Your task to perform on an android device: stop showing notifications on the lock screen Image 0: 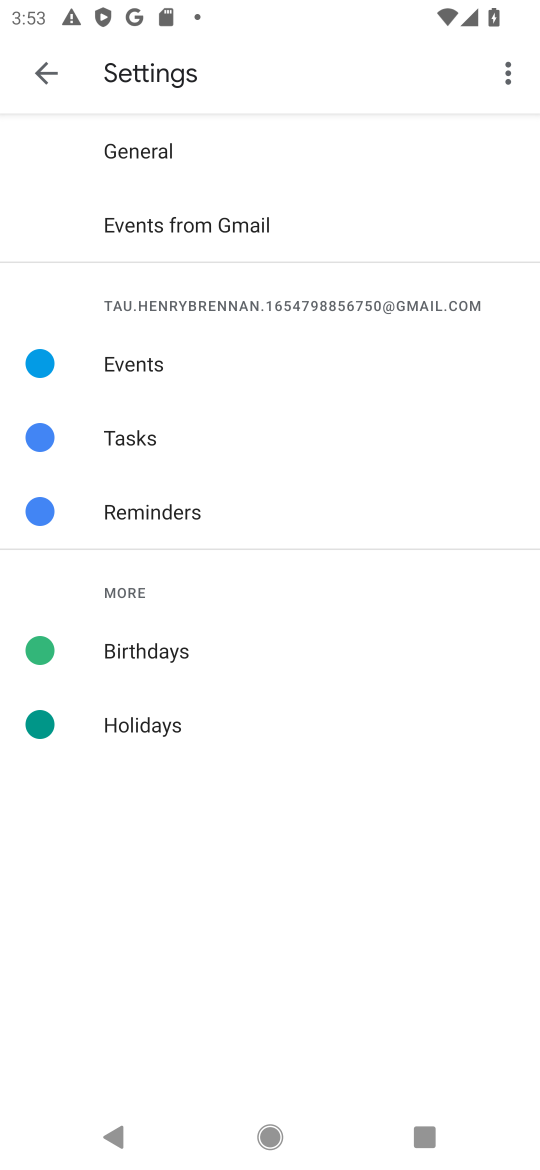
Step 0: press home button
Your task to perform on an android device: stop showing notifications on the lock screen Image 1: 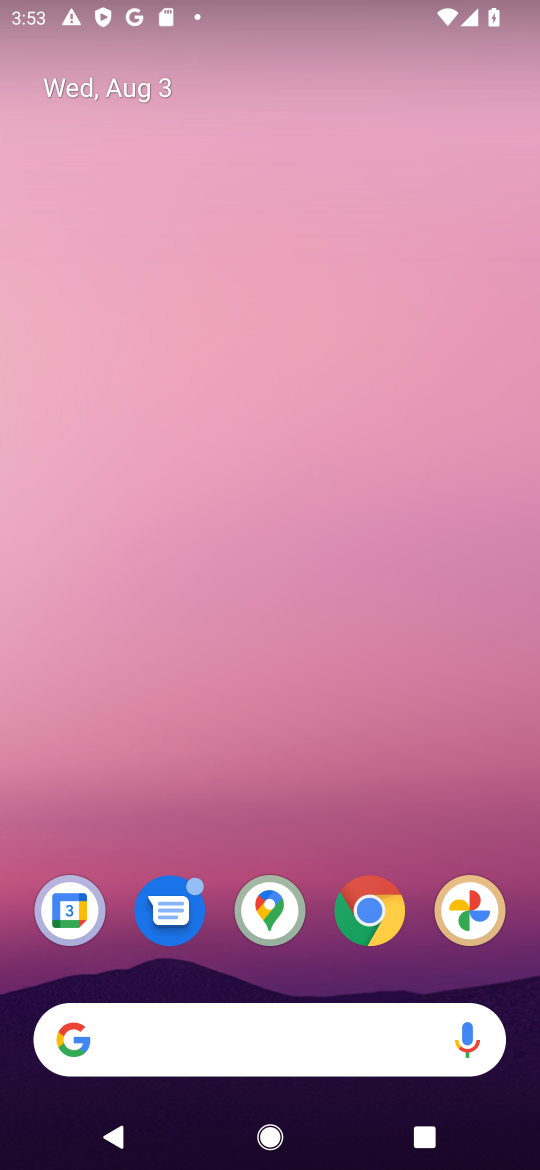
Step 1: drag from (423, 225) to (458, 100)
Your task to perform on an android device: stop showing notifications on the lock screen Image 2: 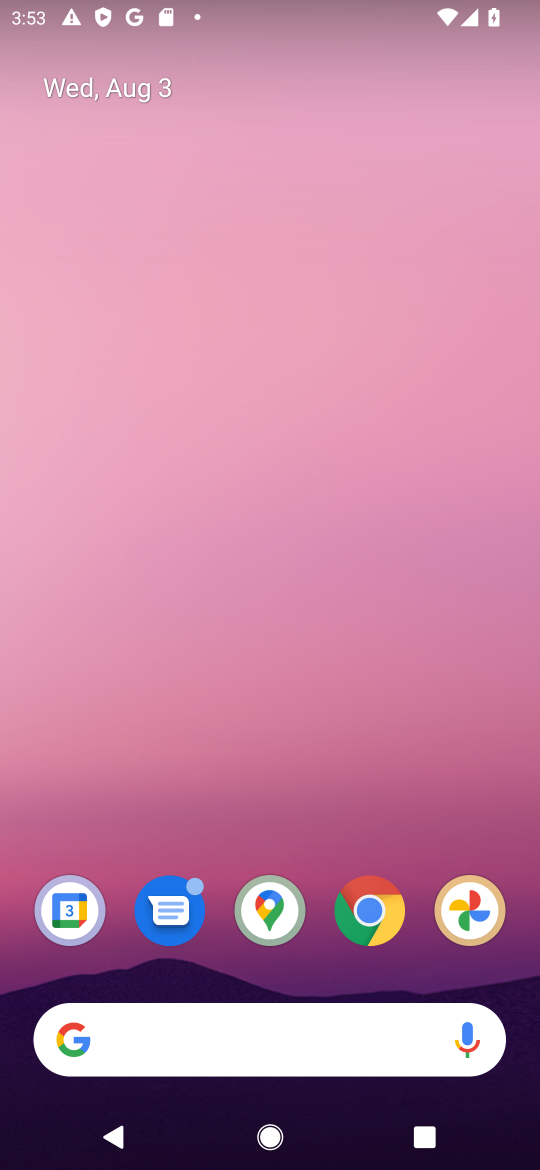
Step 2: drag from (62, 1119) to (484, 76)
Your task to perform on an android device: stop showing notifications on the lock screen Image 3: 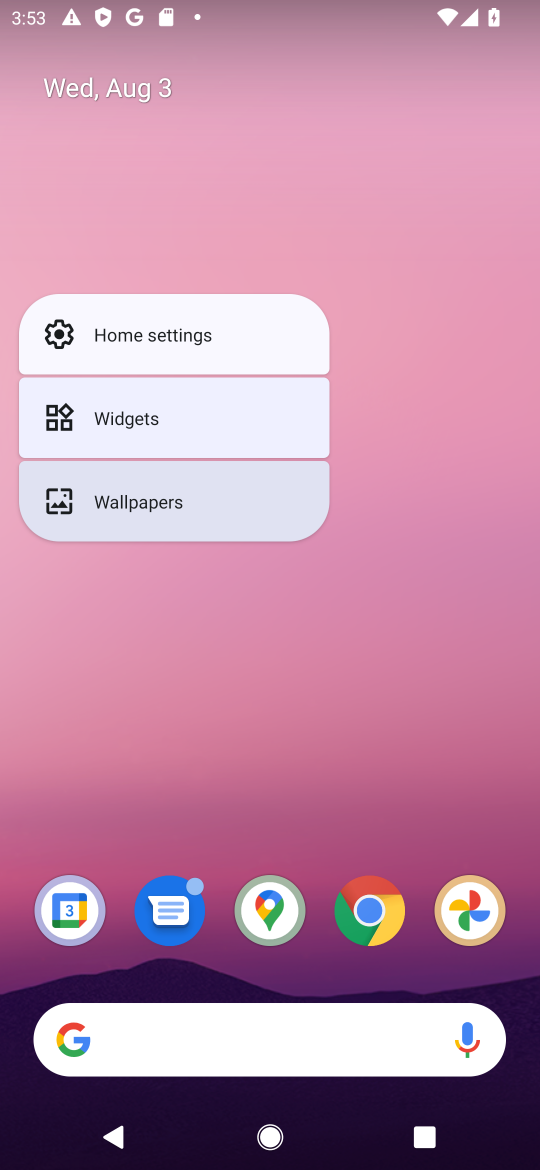
Step 3: drag from (47, 1147) to (351, 68)
Your task to perform on an android device: stop showing notifications on the lock screen Image 4: 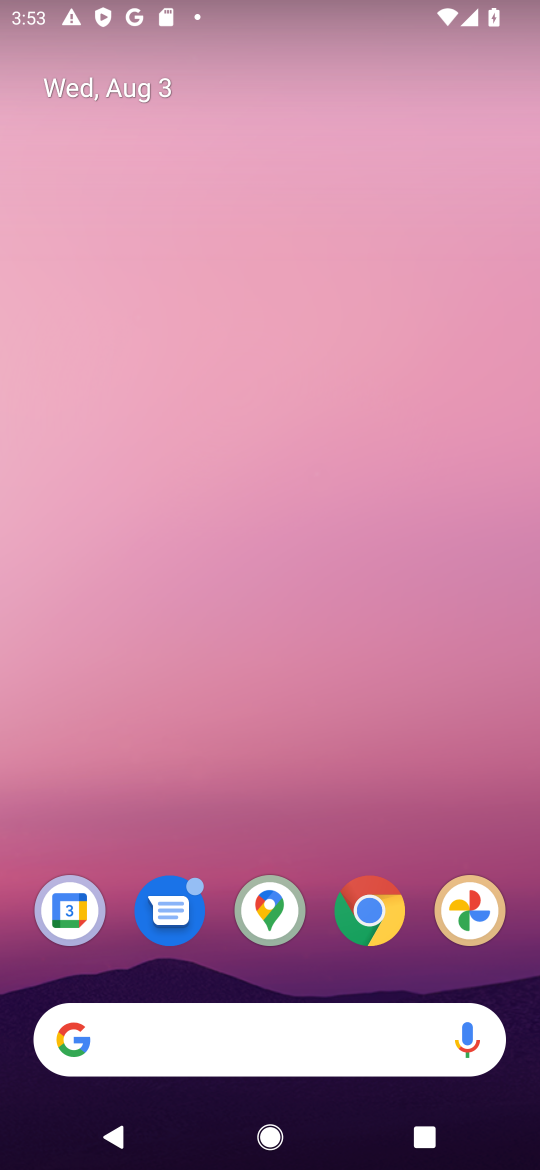
Step 4: drag from (42, 1123) to (385, 30)
Your task to perform on an android device: stop showing notifications on the lock screen Image 5: 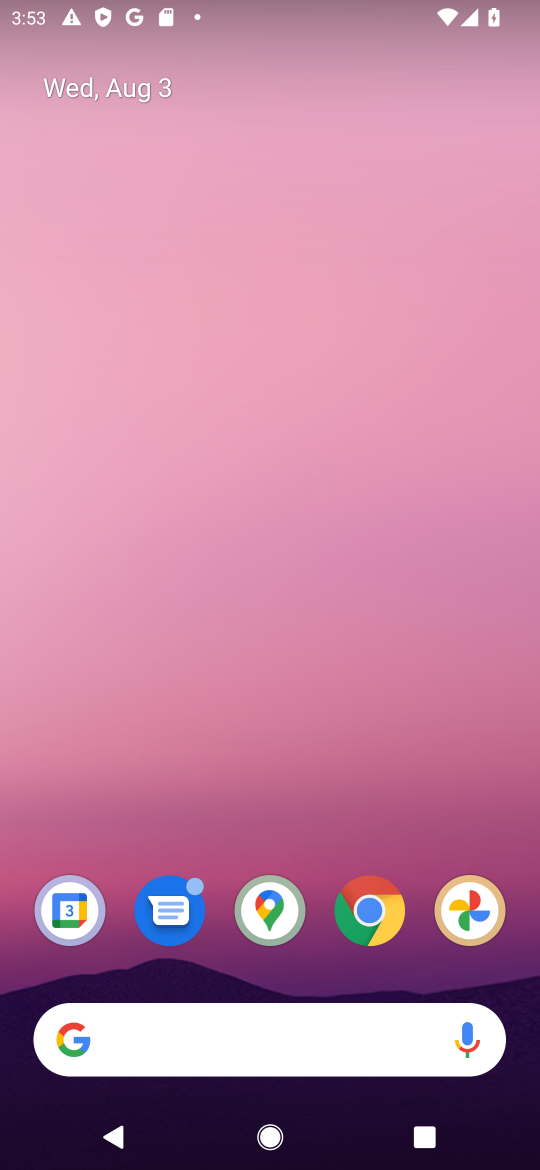
Step 5: drag from (45, 1106) to (383, 5)
Your task to perform on an android device: stop showing notifications on the lock screen Image 6: 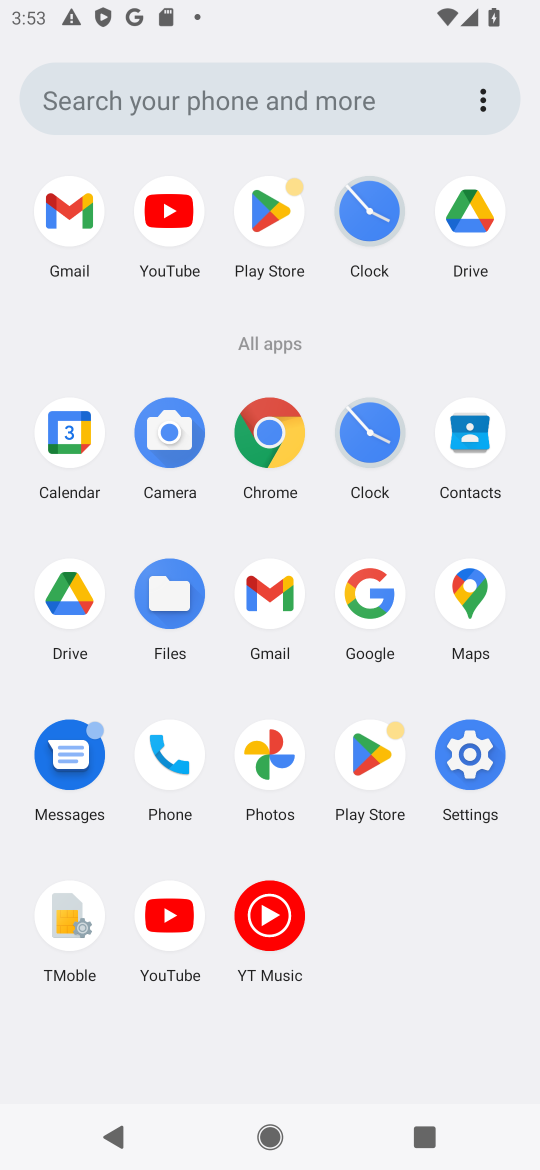
Step 6: click (473, 758)
Your task to perform on an android device: stop showing notifications on the lock screen Image 7: 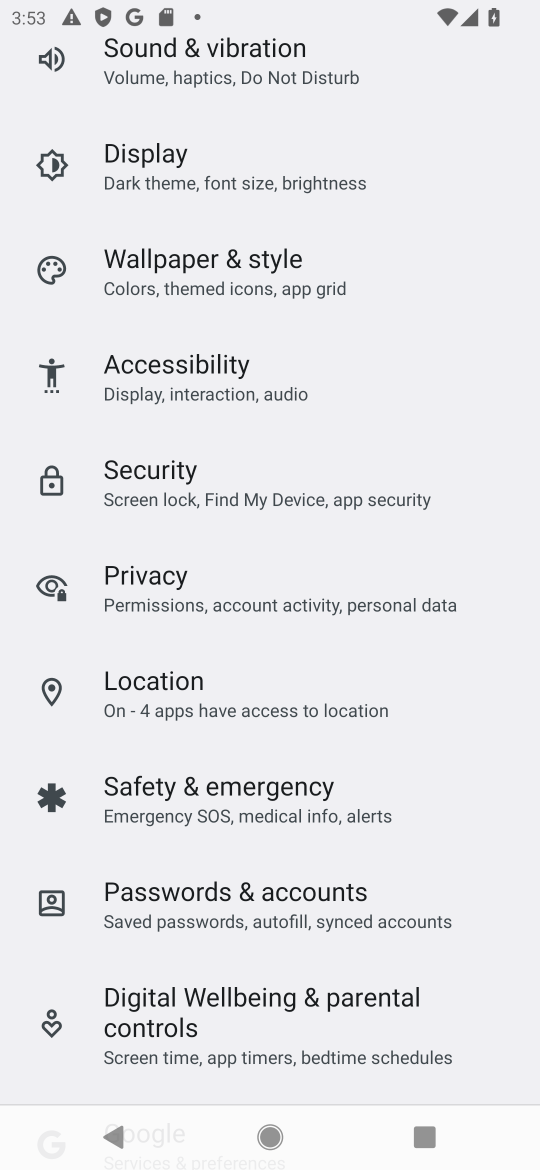
Step 7: drag from (301, 742) to (315, 441)
Your task to perform on an android device: stop showing notifications on the lock screen Image 8: 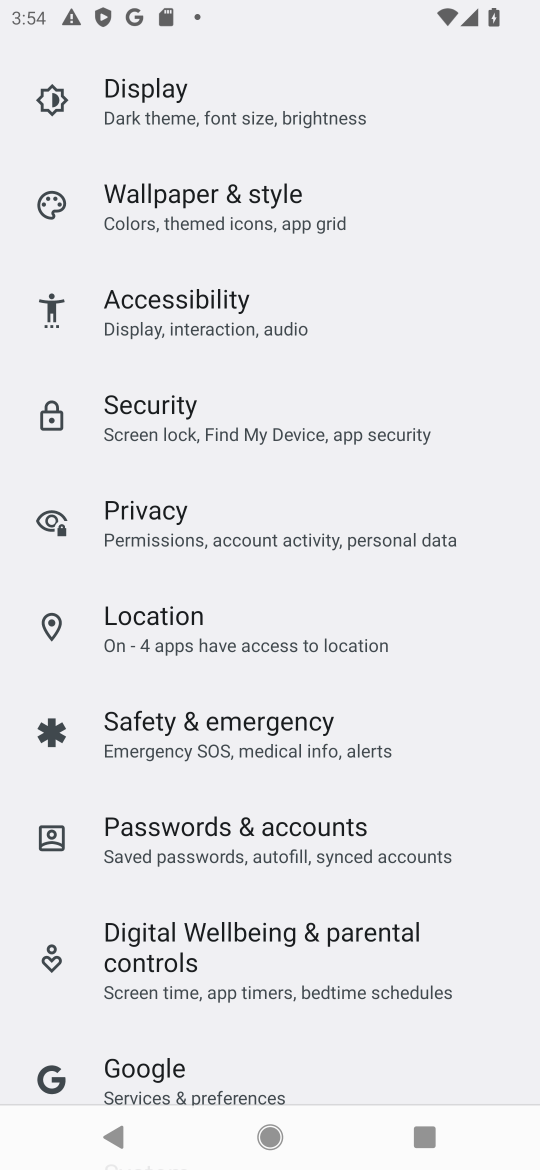
Step 8: drag from (331, 206) to (303, 1134)
Your task to perform on an android device: stop showing notifications on the lock screen Image 9: 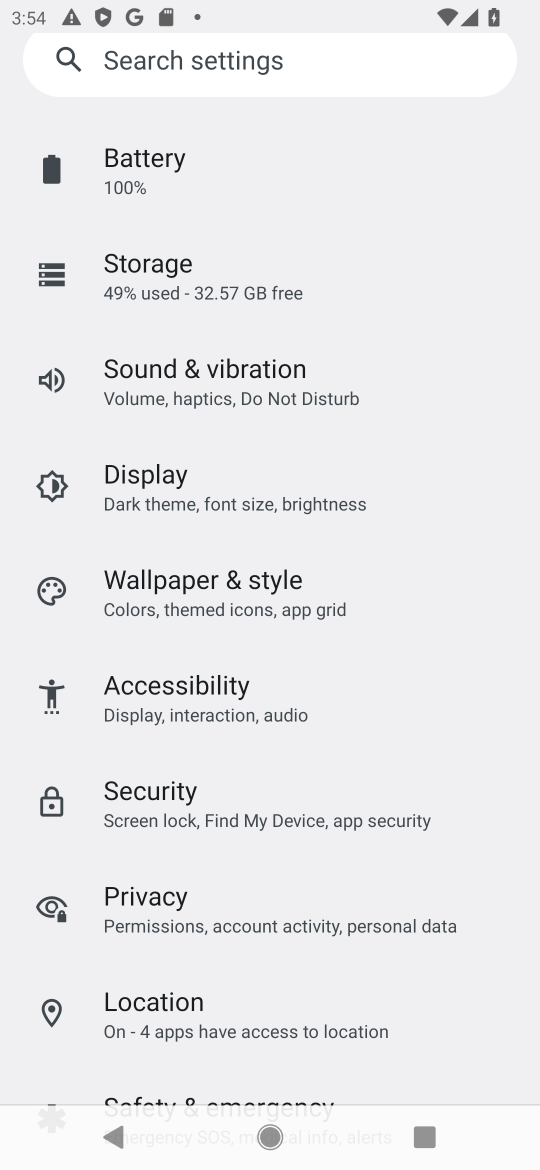
Step 9: drag from (359, 188) to (343, 974)
Your task to perform on an android device: stop showing notifications on the lock screen Image 10: 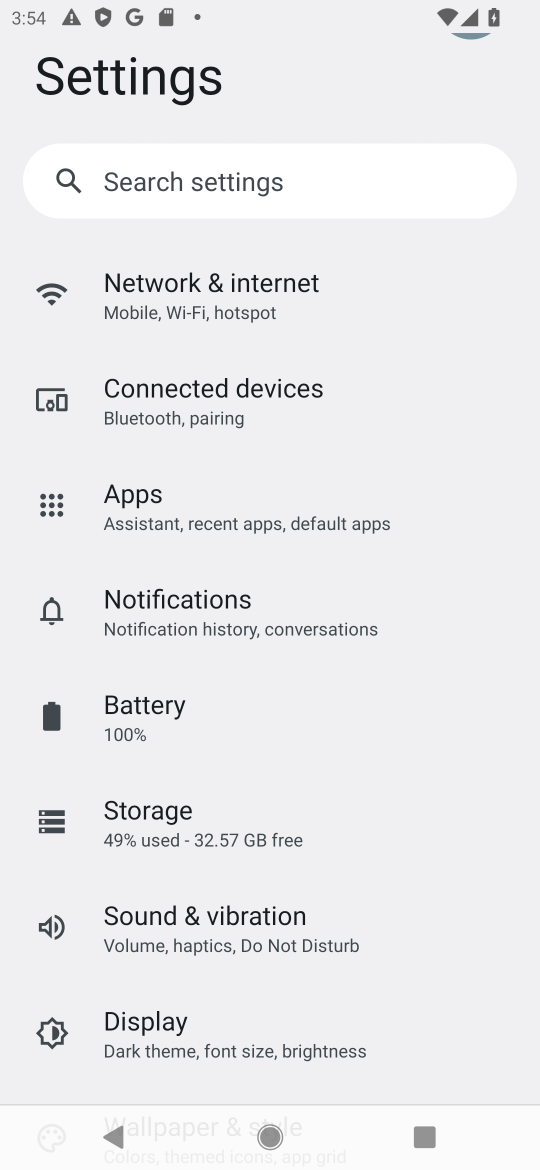
Step 10: click (157, 607)
Your task to perform on an android device: stop showing notifications on the lock screen Image 11: 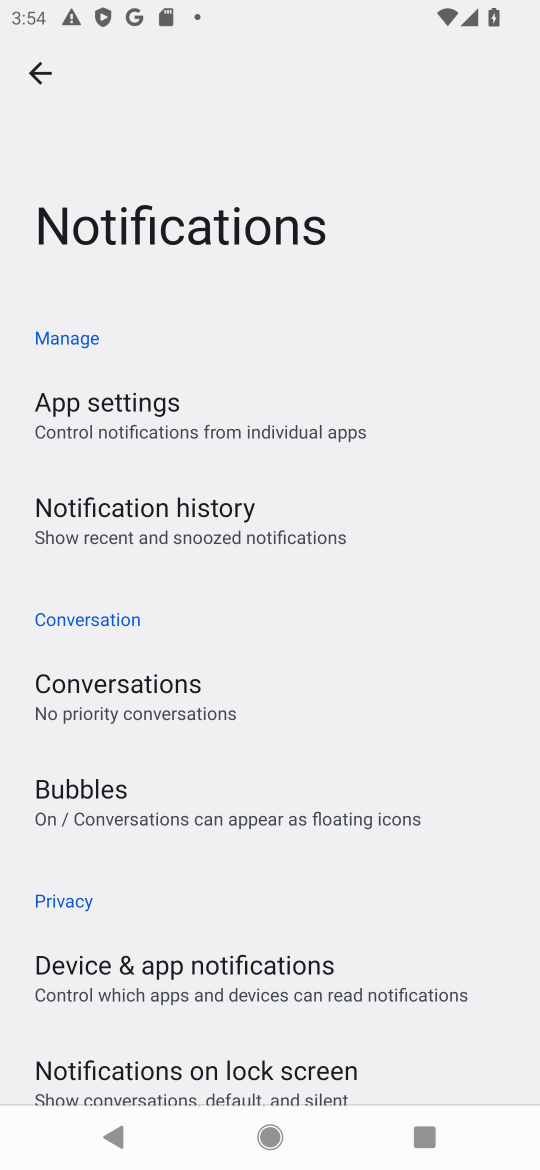
Step 11: click (107, 1077)
Your task to perform on an android device: stop showing notifications on the lock screen Image 12: 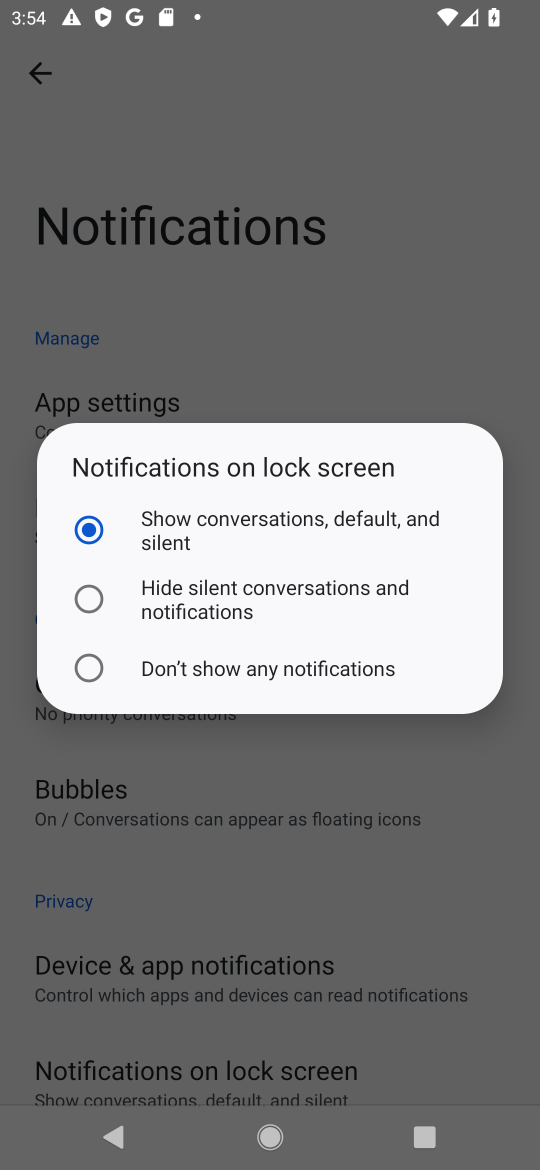
Step 12: click (77, 659)
Your task to perform on an android device: stop showing notifications on the lock screen Image 13: 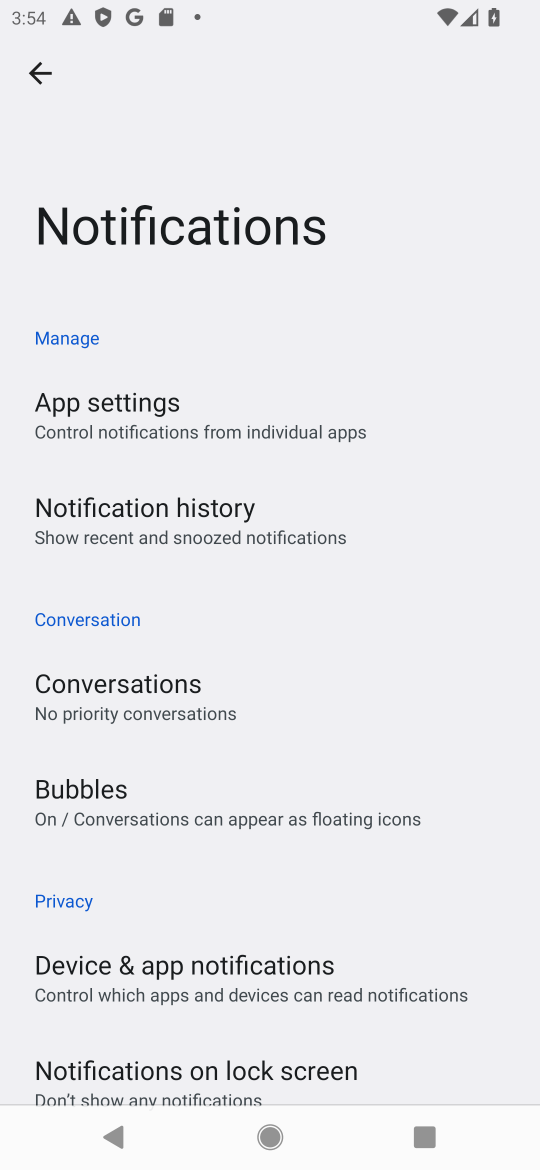
Step 13: task complete